Your task to perform on an android device: turn off improve location accuracy Image 0: 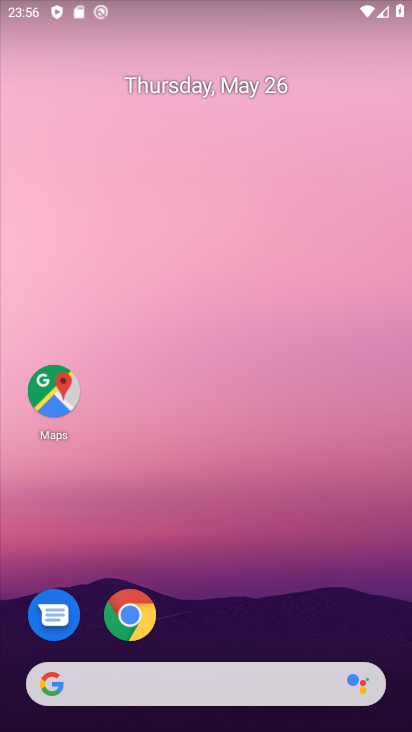
Step 0: drag from (345, 612) to (394, 9)
Your task to perform on an android device: turn off improve location accuracy Image 1: 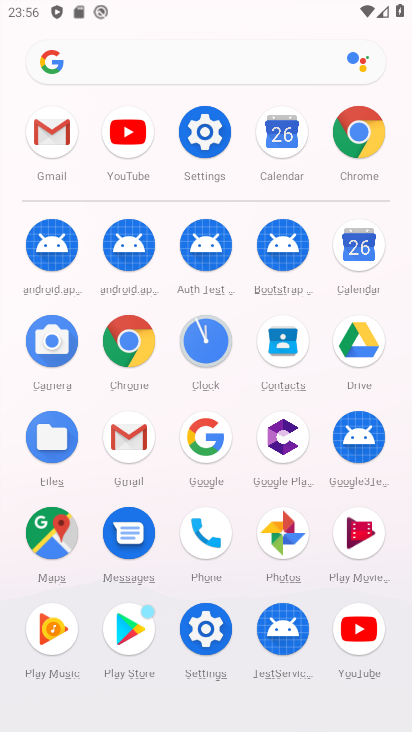
Step 1: click (202, 630)
Your task to perform on an android device: turn off improve location accuracy Image 2: 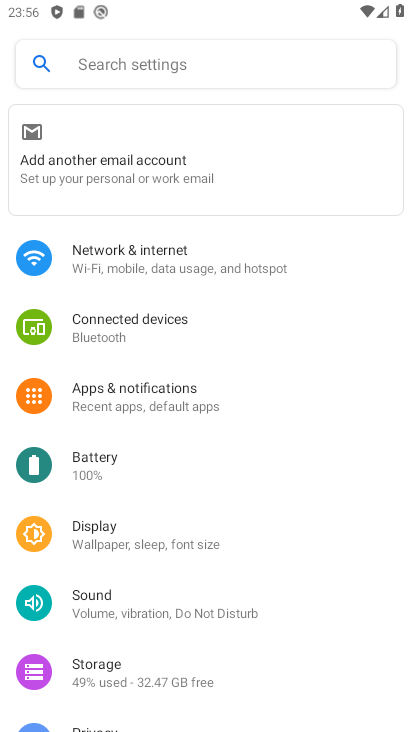
Step 2: drag from (177, 668) to (156, 110)
Your task to perform on an android device: turn off improve location accuracy Image 3: 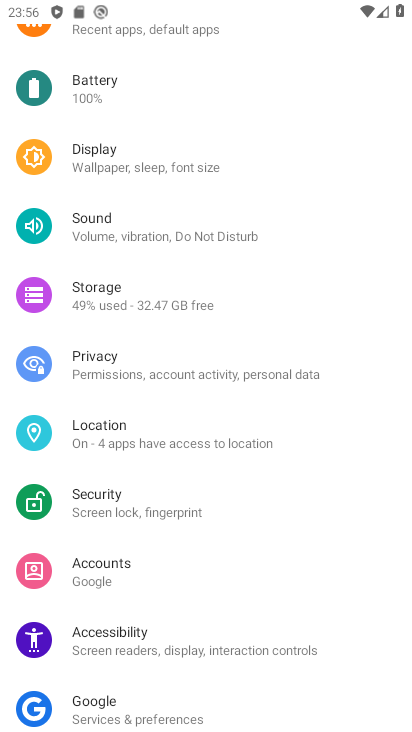
Step 3: click (153, 436)
Your task to perform on an android device: turn off improve location accuracy Image 4: 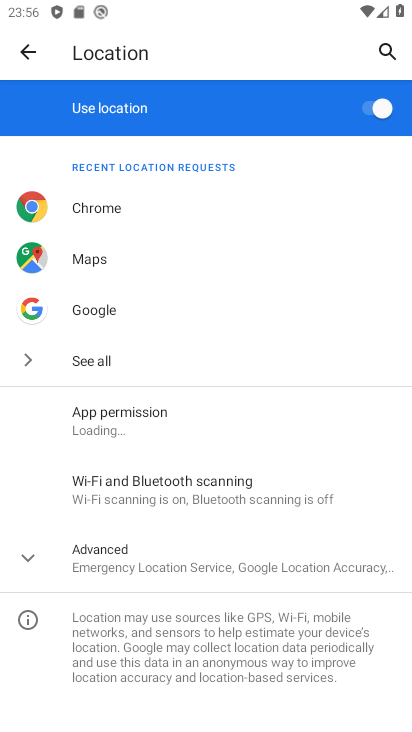
Step 4: click (153, 563)
Your task to perform on an android device: turn off improve location accuracy Image 5: 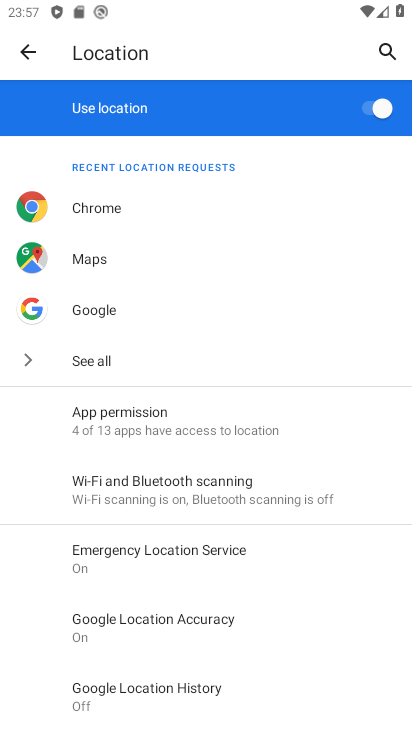
Step 5: click (186, 632)
Your task to perform on an android device: turn off improve location accuracy Image 6: 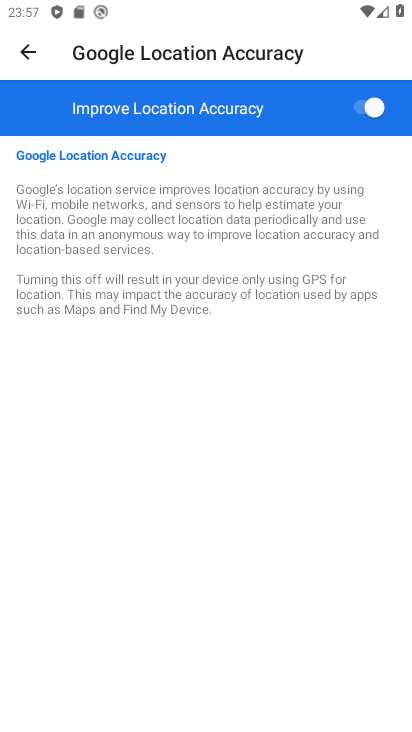
Step 6: click (324, 103)
Your task to perform on an android device: turn off improve location accuracy Image 7: 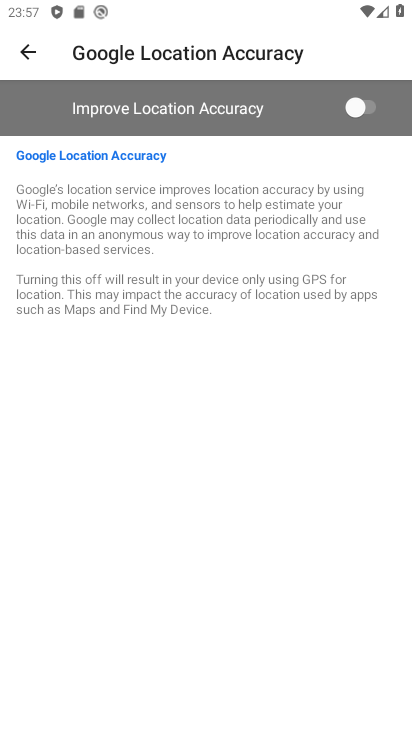
Step 7: task complete